Your task to perform on an android device: add a contact Image 0: 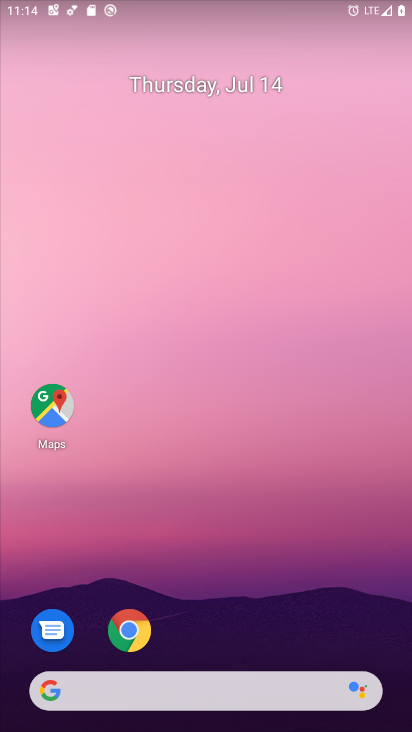
Step 0: drag from (187, 551) to (187, 165)
Your task to perform on an android device: add a contact Image 1: 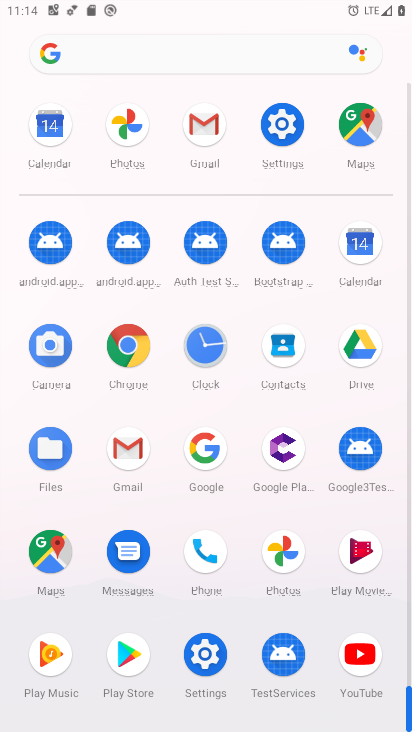
Step 1: click (265, 348)
Your task to perform on an android device: add a contact Image 2: 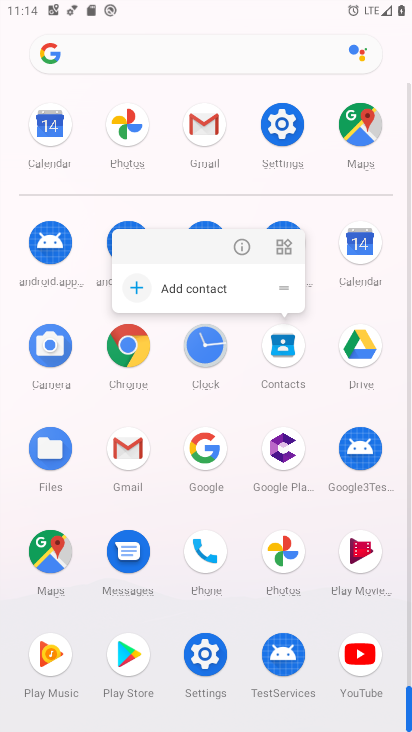
Step 2: click (250, 247)
Your task to perform on an android device: add a contact Image 3: 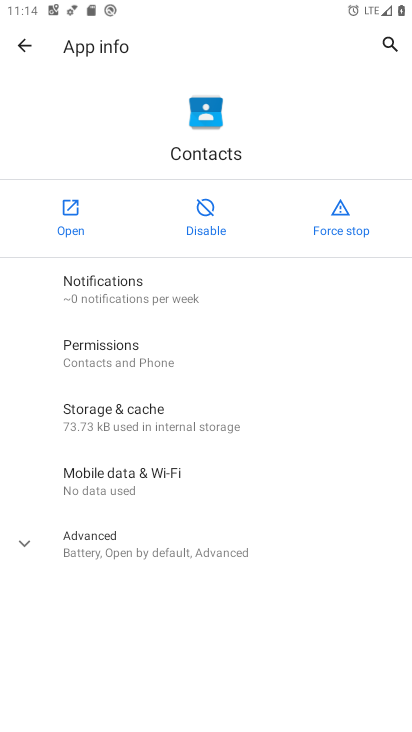
Step 3: click (74, 206)
Your task to perform on an android device: add a contact Image 4: 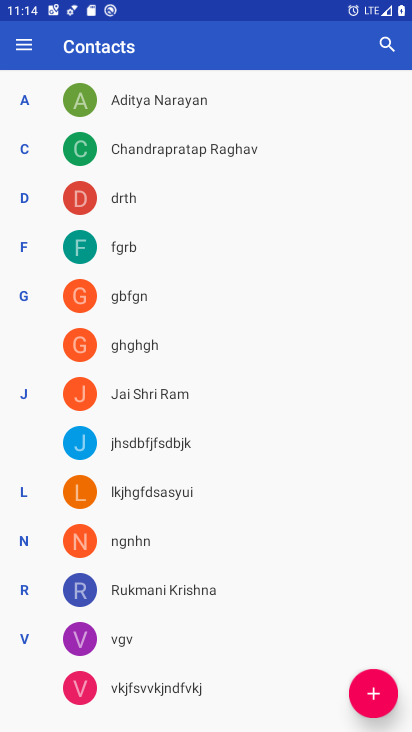
Step 4: click (381, 715)
Your task to perform on an android device: add a contact Image 5: 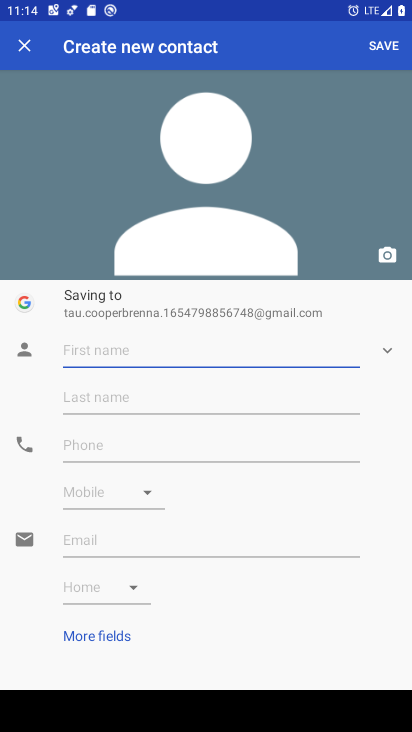
Step 5: click (146, 361)
Your task to perform on an android device: add a contact Image 6: 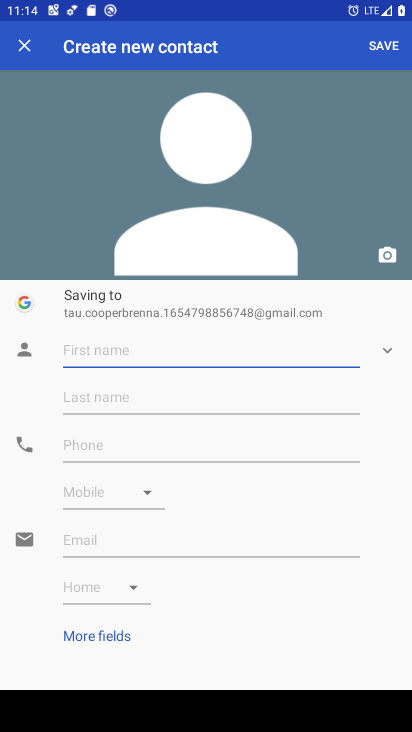
Step 6: type "aksma"
Your task to perform on an android device: add a contact Image 7: 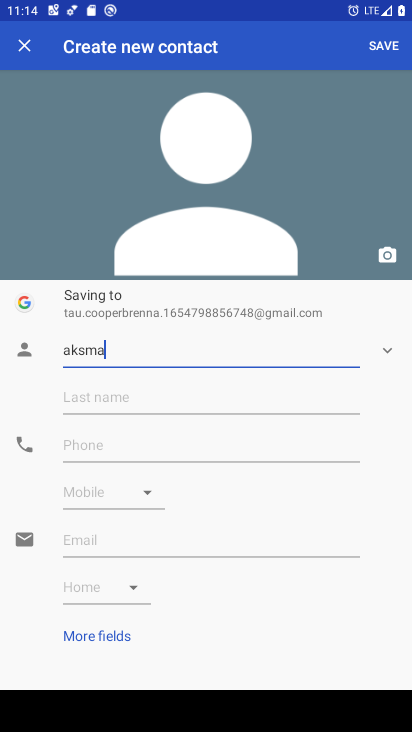
Step 7: task complete